Your task to perform on an android device: delete a single message in the gmail app Image 0: 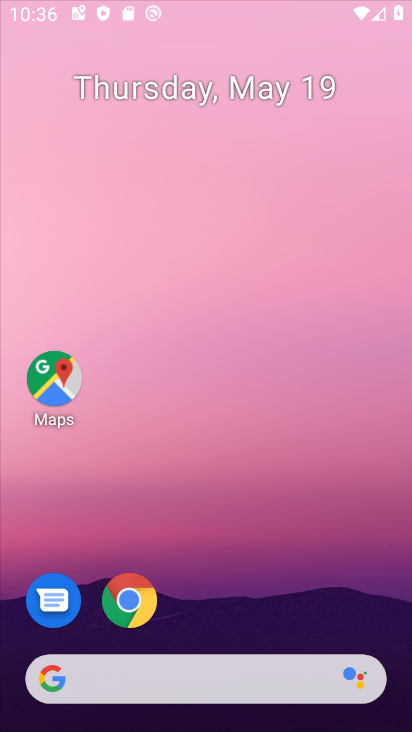
Step 0: press home button
Your task to perform on an android device: delete a single message in the gmail app Image 1: 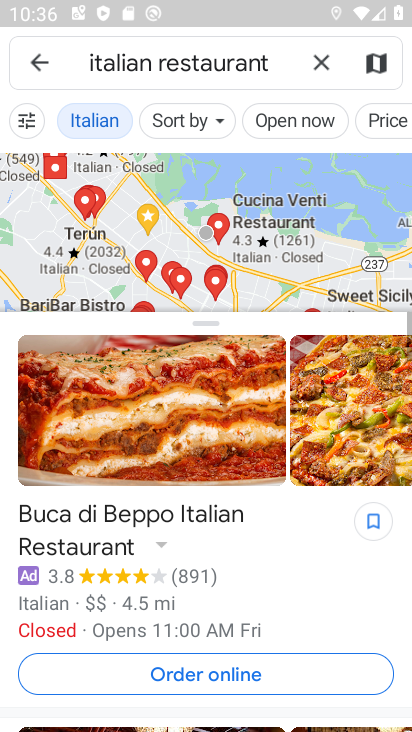
Step 1: drag from (296, 210) to (296, 24)
Your task to perform on an android device: delete a single message in the gmail app Image 2: 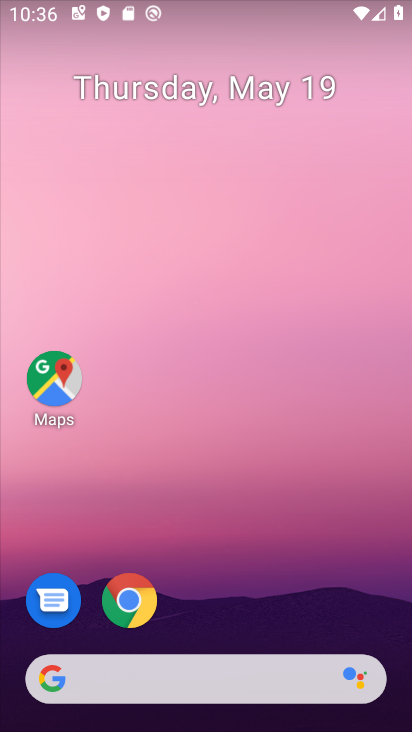
Step 2: drag from (281, 568) to (348, 146)
Your task to perform on an android device: delete a single message in the gmail app Image 3: 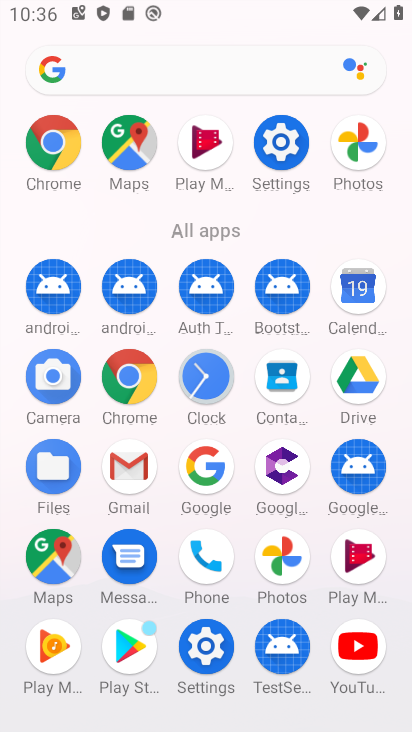
Step 3: click (145, 470)
Your task to perform on an android device: delete a single message in the gmail app Image 4: 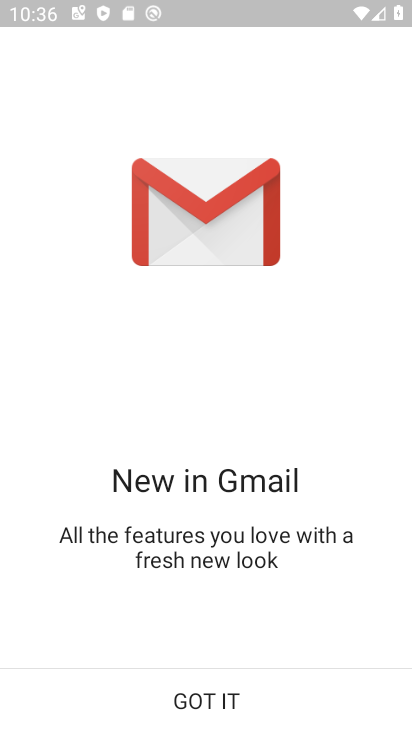
Step 4: click (286, 697)
Your task to perform on an android device: delete a single message in the gmail app Image 5: 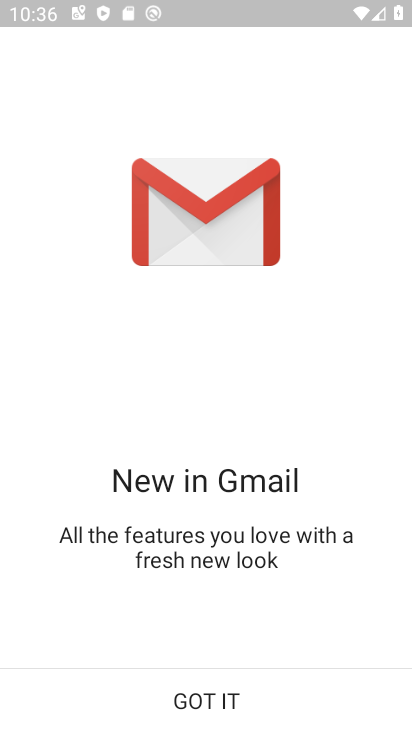
Step 5: click (286, 697)
Your task to perform on an android device: delete a single message in the gmail app Image 6: 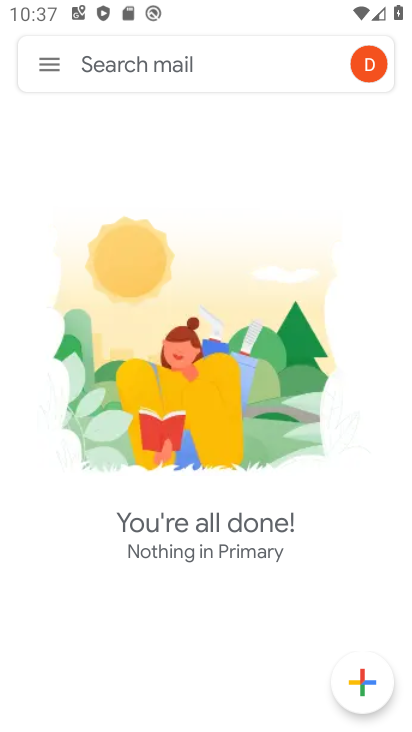
Step 6: click (52, 64)
Your task to perform on an android device: delete a single message in the gmail app Image 7: 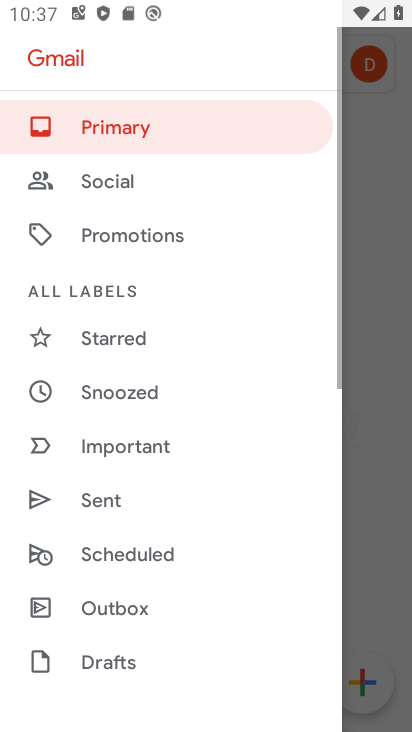
Step 7: task complete